Your task to perform on an android device: Show me popular videos on Youtube Image 0: 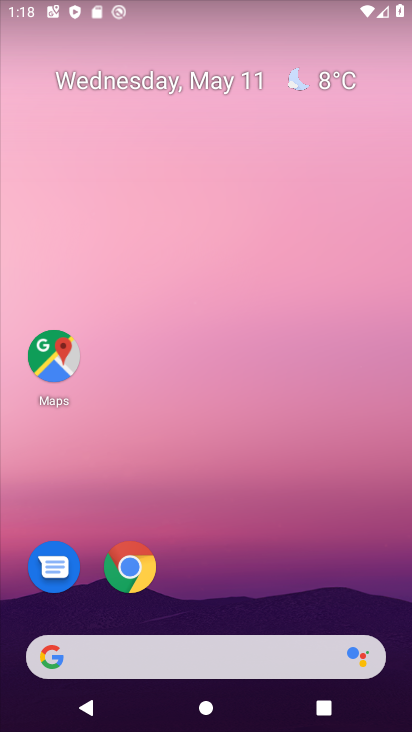
Step 0: drag from (379, 577) to (285, 239)
Your task to perform on an android device: Show me popular videos on Youtube Image 1: 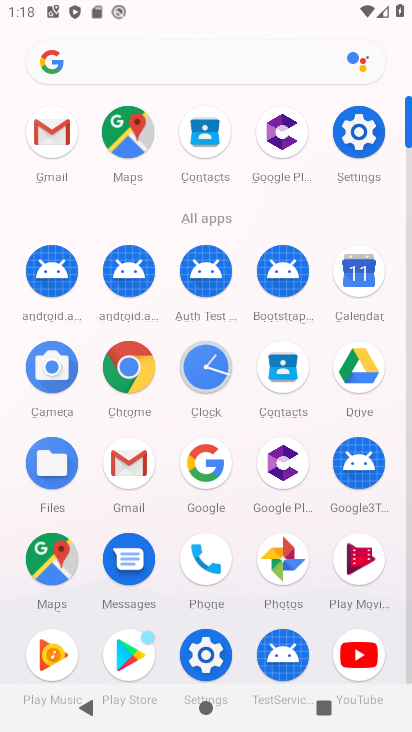
Step 1: drag from (223, 211) to (164, 5)
Your task to perform on an android device: Show me popular videos on Youtube Image 2: 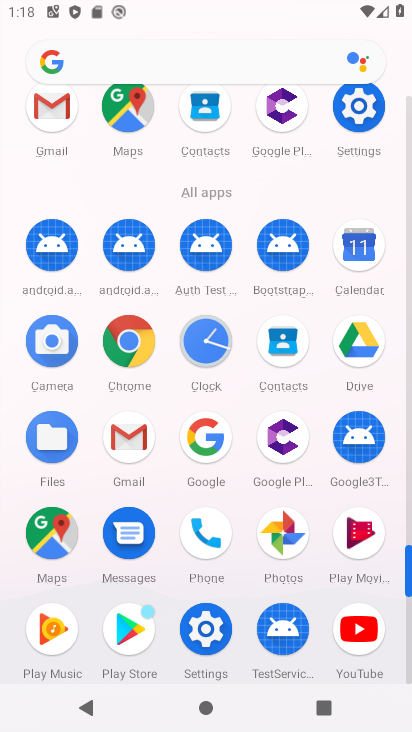
Step 2: click (364, 616)
Your task to perform on an android device: Show me popular videos on Youtube Image 3: 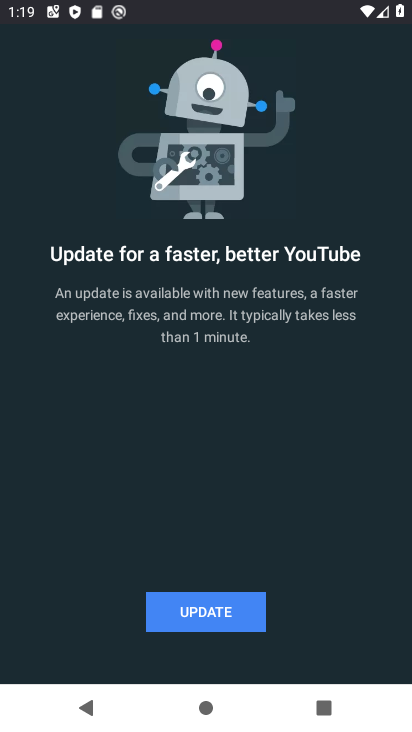
Step 3: task complete